Your task to perform on an android device: delete location history Image 0: 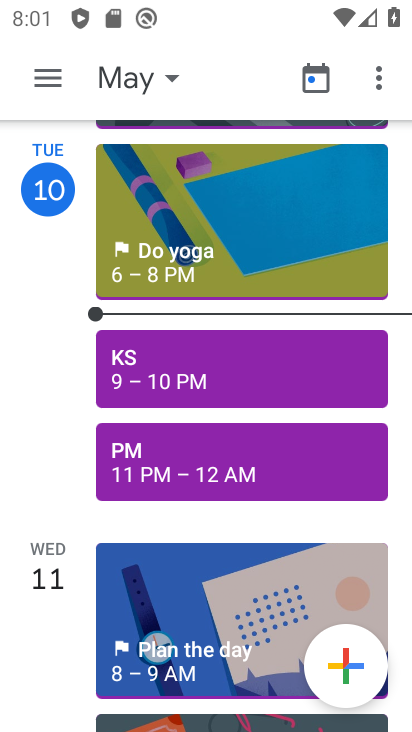
Step 0: press back button
Your task to perform on an android device: delete location history Image 1: 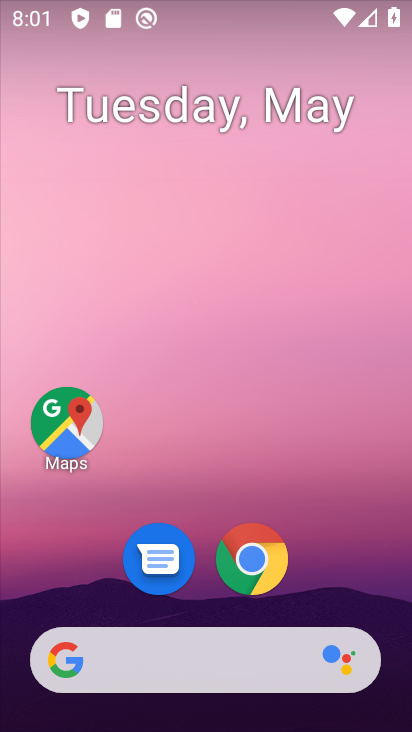
Step 1: click (57, 413)
Your task to perform on an android device: delete location history Image 2: 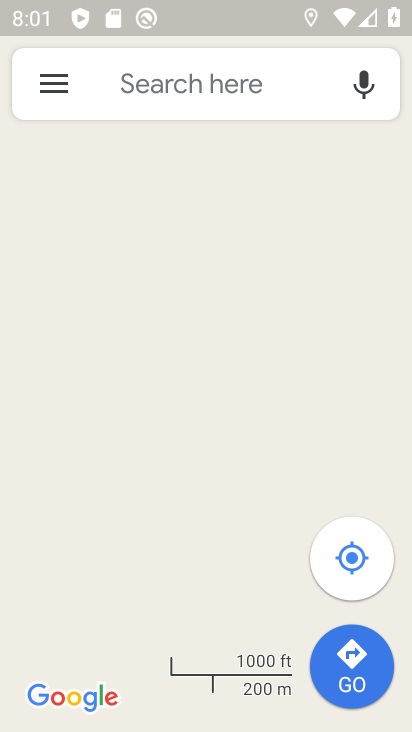
Step 2: click (54, 83)
Your task to perform on an android device: delete location history Image 3: 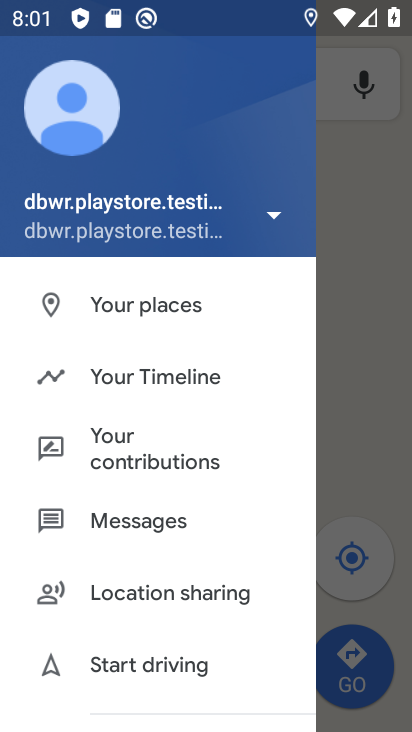
Step 3: click (146, 377)
Your task to perform on an android device: delete location history Image 4: 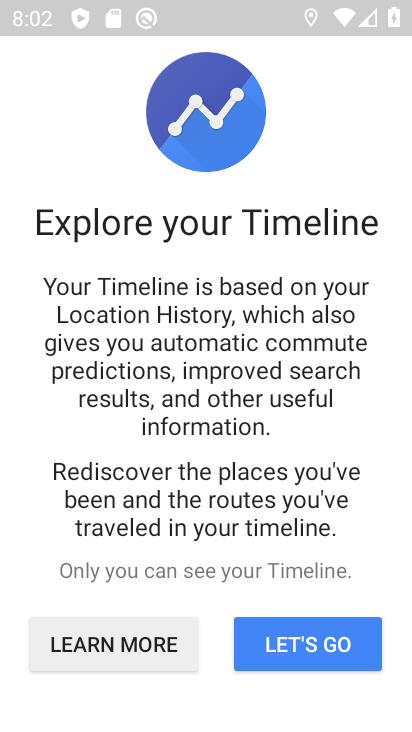
Step 4: click (318, 635)
Your task to perform on an android device: delete location history Image 5: 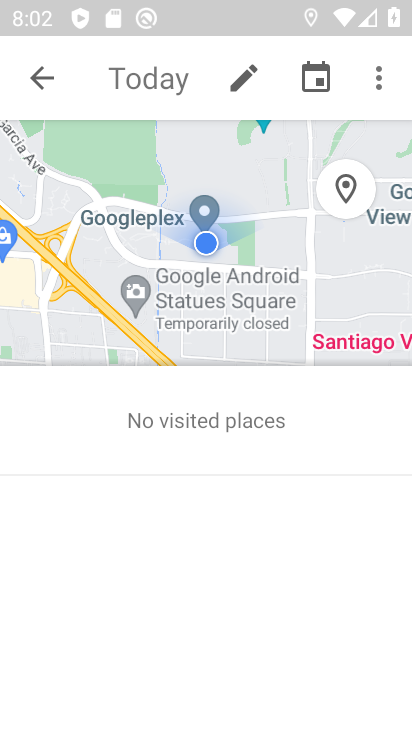
Step 5: click (383, 68)
Your task to perform on an android device: delete location history Image 6: 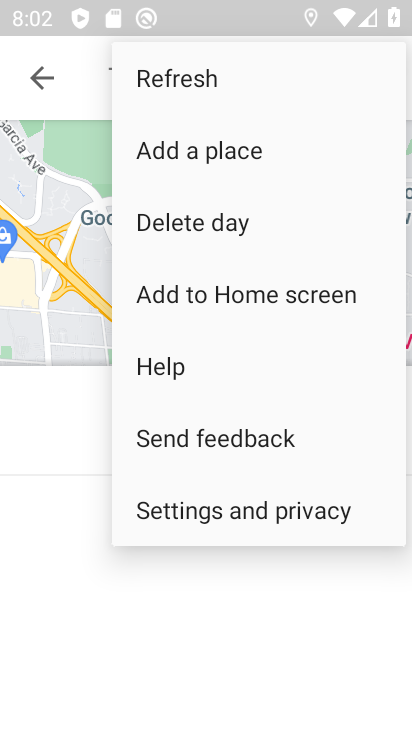
Step 6: click (233, 514)
Your task to perform on an android device: delete location history Image 7: 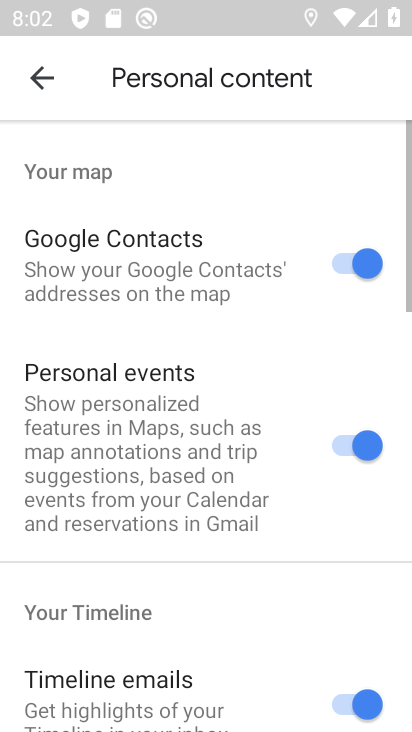
Step 7: drag from (139, 662) to (213, 191)
Your task to perform on an android device: delete location history Image 8: 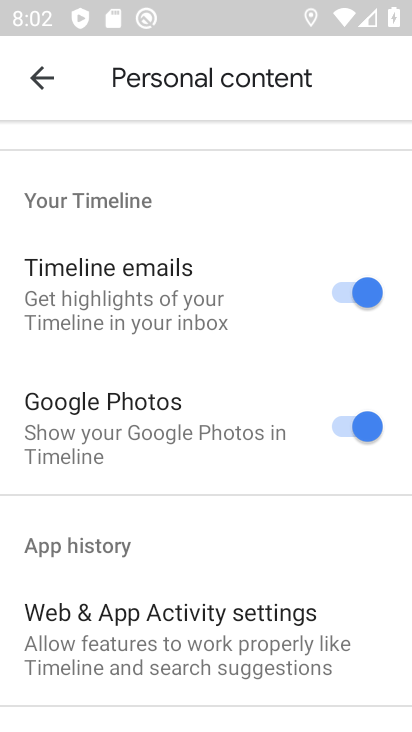
Step 8: drag from (133, 672) to (205, 347)
Your task to perform on an android device: delete location history Image 9: 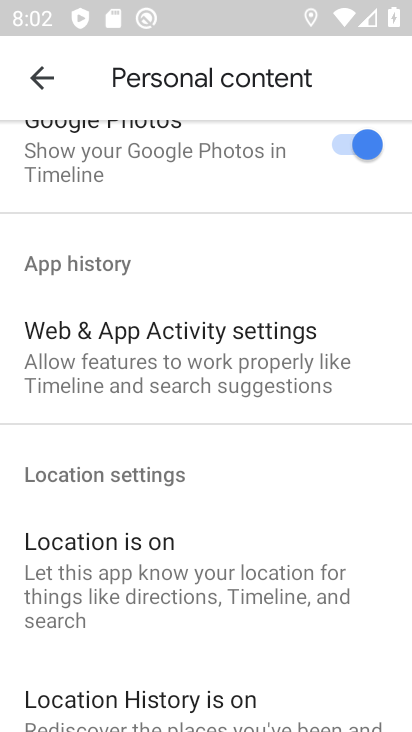
Step 9: drag from (150, 695) to (220, 346)
Your task to perform on an android device: delete location history Image 10: 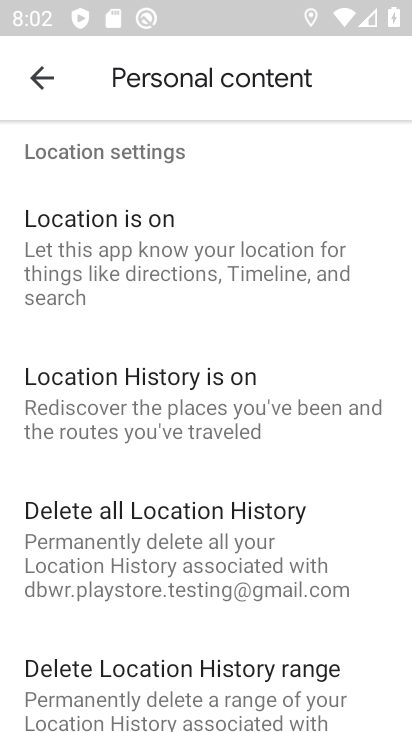
Step 10: click (116, 529)
Your task to perform on an android device: delete location history Image 11: 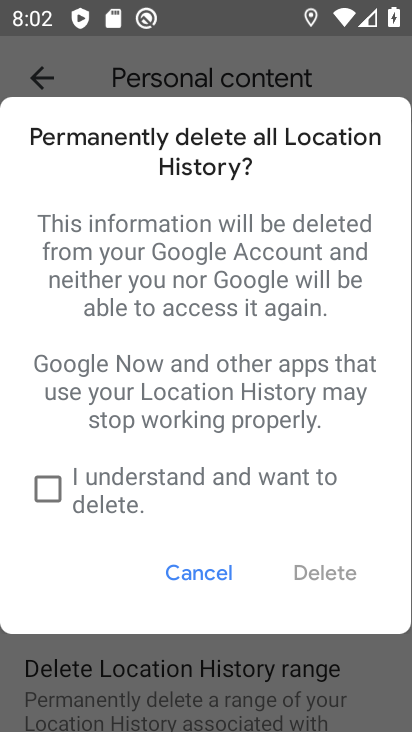
Step 11: click (52, 492)
Your task to perform on an android device: delete location history Image 12: 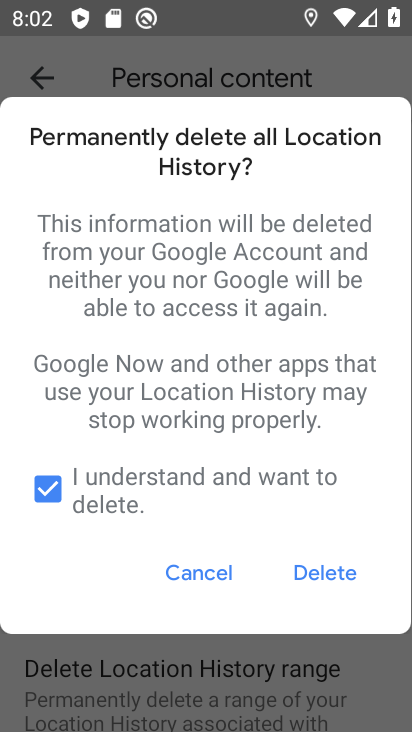
Step 12: click (327, 580)
Your task to perform on an android device: delete location history Image 13: 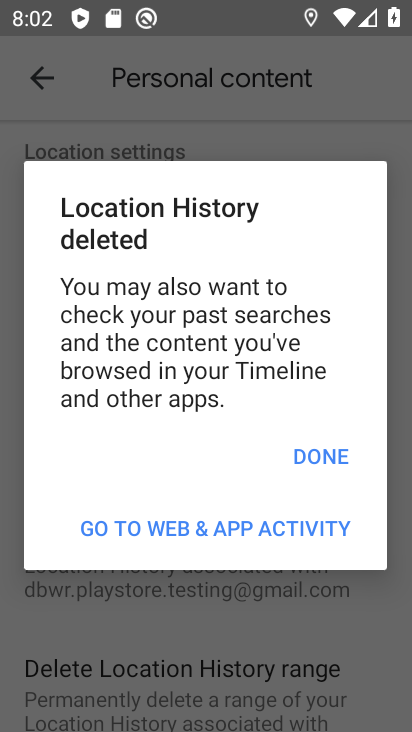
Step 13: click (296, 454)
Your task to perform on an android device: delete location history Image 14: 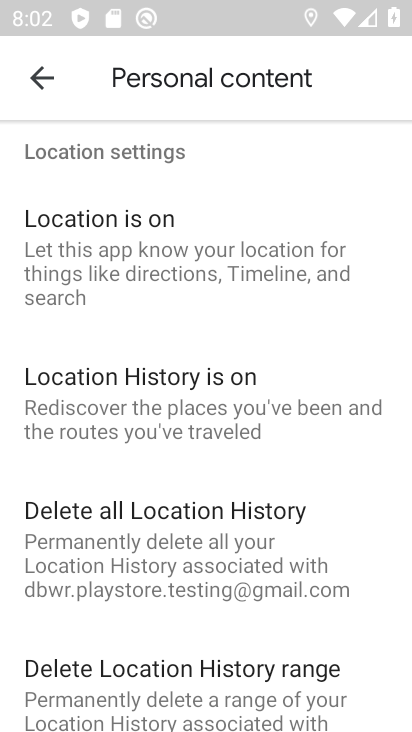
Step 14: task complete